Your task to perform on an android device: snooze an email in the gmail app Image 0: 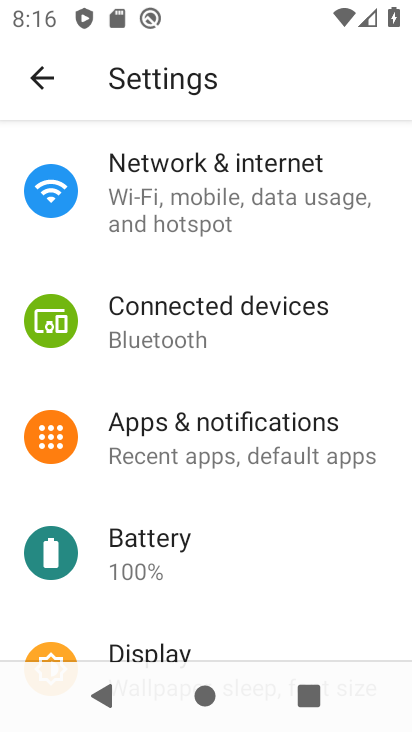
Step 0: press back button
Your task to perform on an android device: snooze an email in the gmail app Image 1: 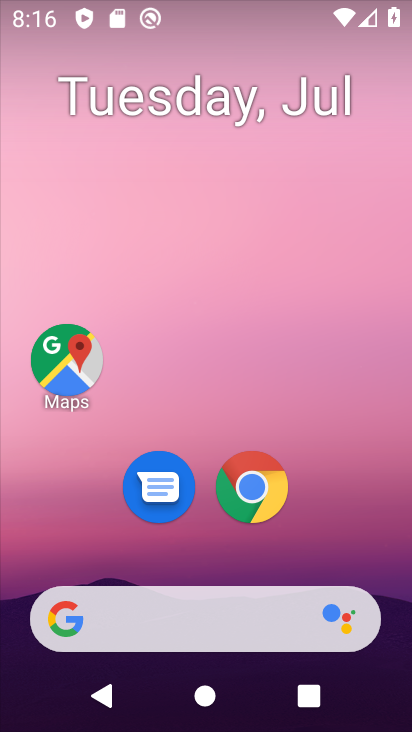
Step 1: drag from (158, 552) to (298, 12)
Your task to perform on an android device: snooze an email in the gmail app Image 2: 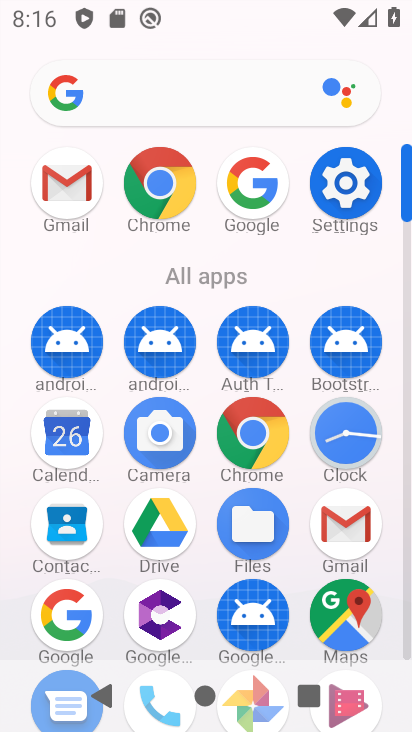
Step 2: click (71, 189)
Your task to perform on an android device: snooze an email in the gmail app Image 3: 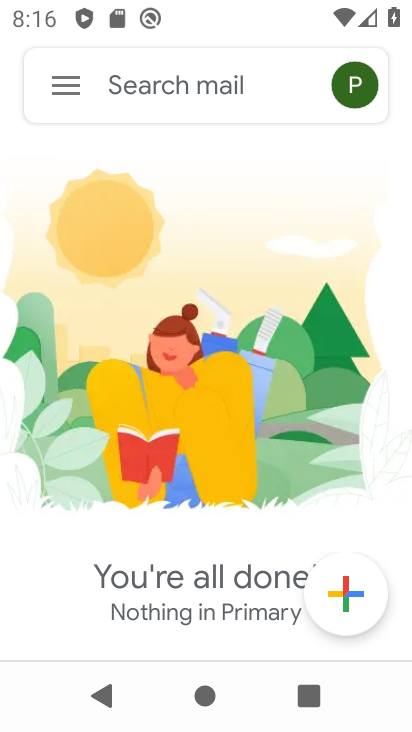
Step 3: click (75, 83)
Your task to perform on an android device: snooze an email in the gmail app Image 4: 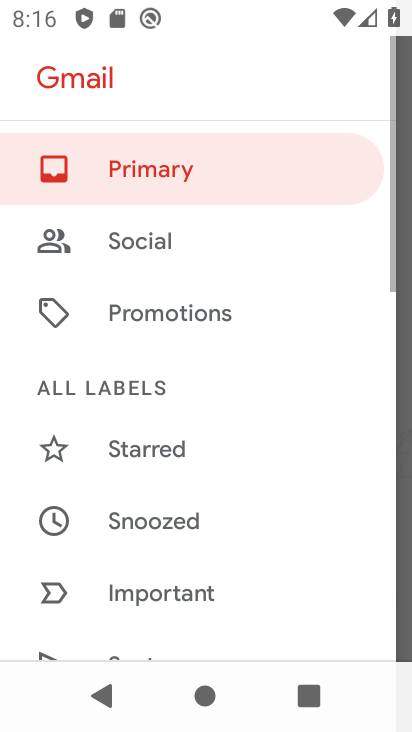
Step 4: drag from (141, 559) to (262, 87)
Your task to perform on an android device: snooze an email in the gmail app Image 5: 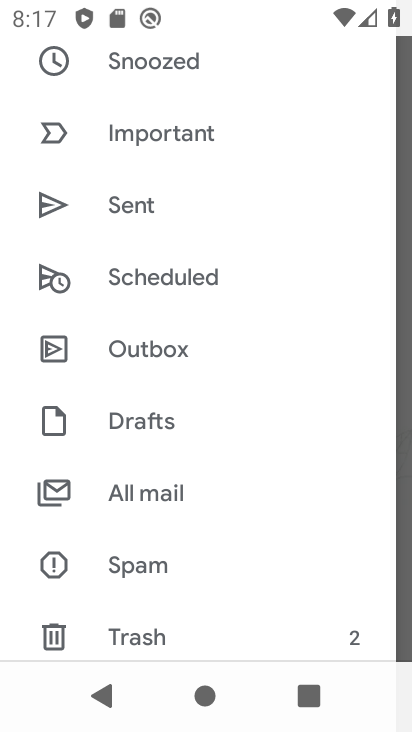
Step 5: click (173, 498)
Your task to perform on an android device: snooze an email in the gmail app Image 6: 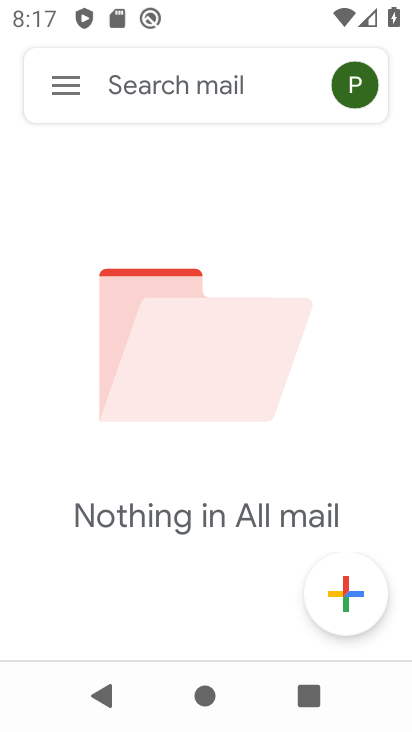
Step 6: task complete